Your task to perform on an android device: Open Google Image 0: 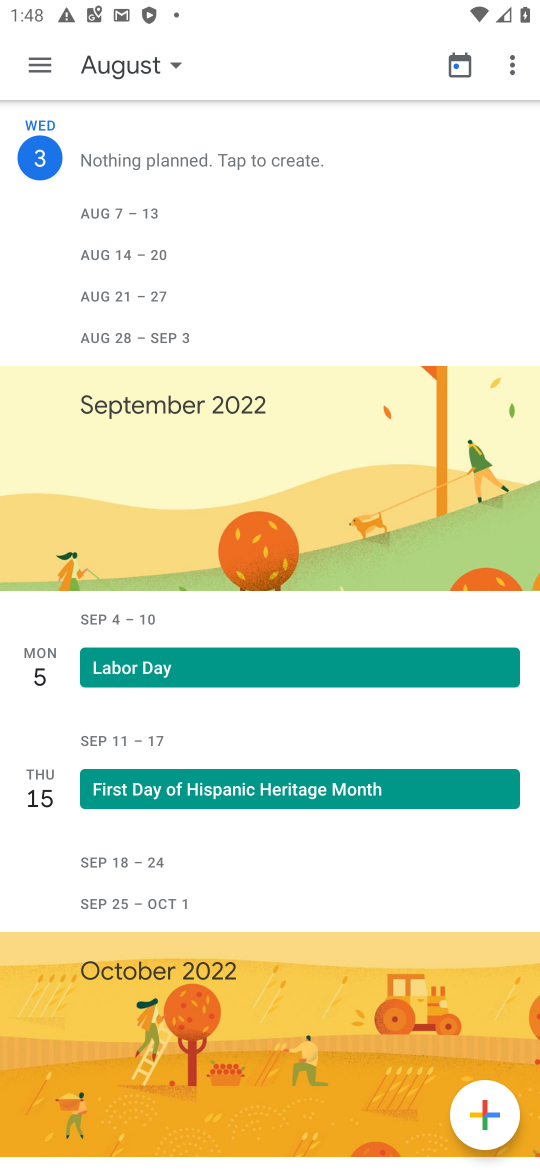
Step 0: press home button
Your task to perform on an android device: Open Google Image 1: 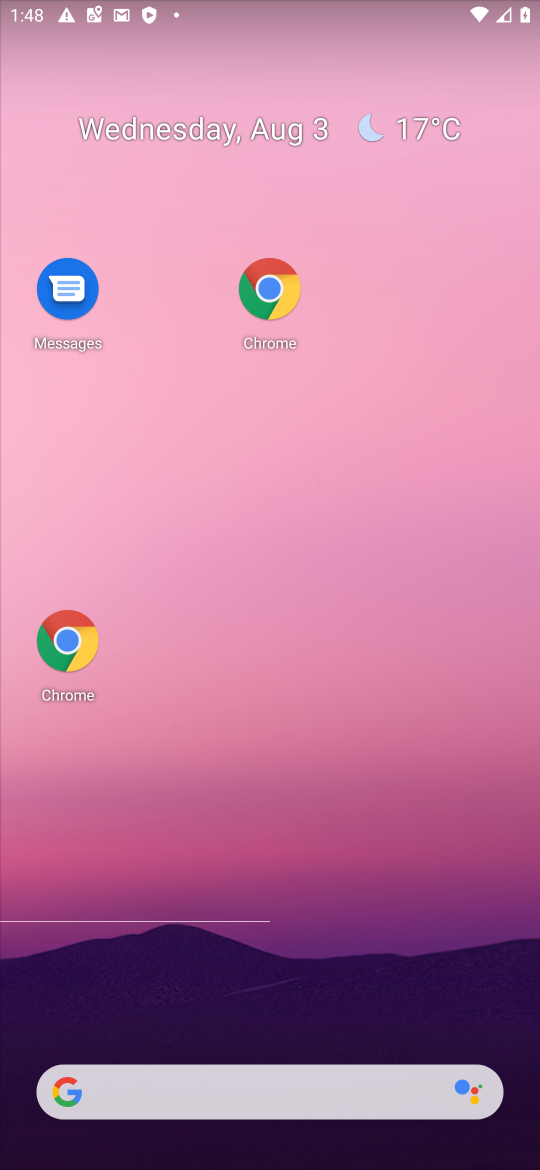
Step 1: click (54, 664)
Your task to perform on an android device: Open Google Image 2: 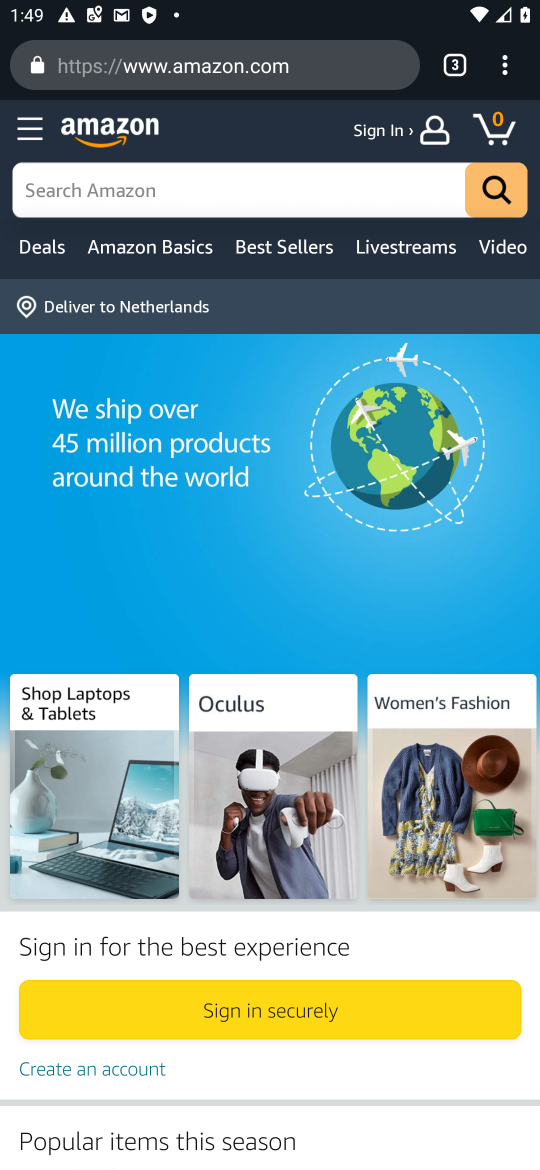
Step 2: click (358, 56)
Your task to perform on an android device: Open Google Image 3: 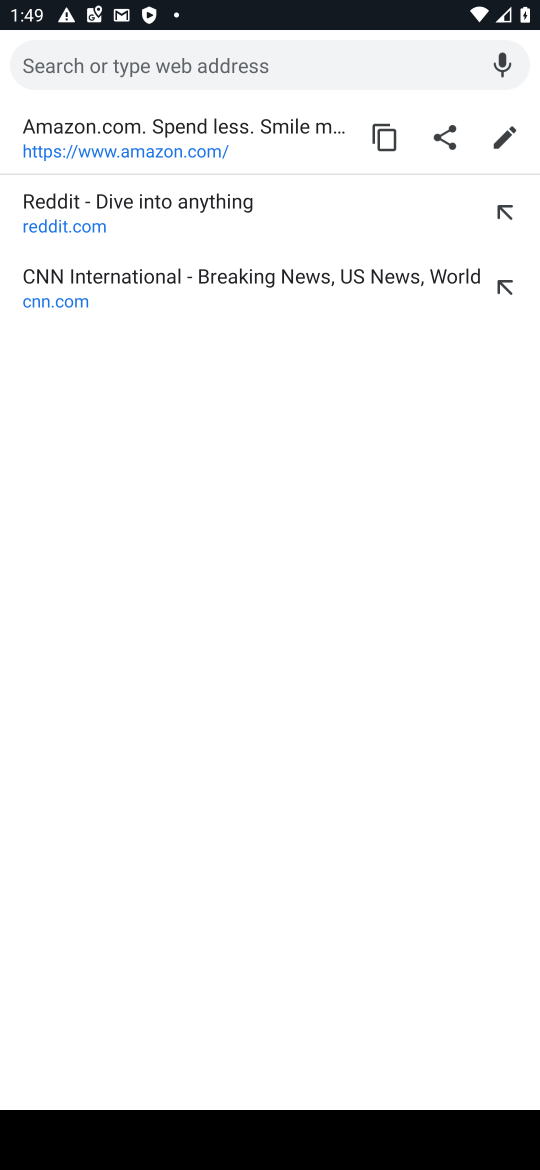
Step 3: type "google.com"
Your task to perform on an android device: Open Google Image 4: 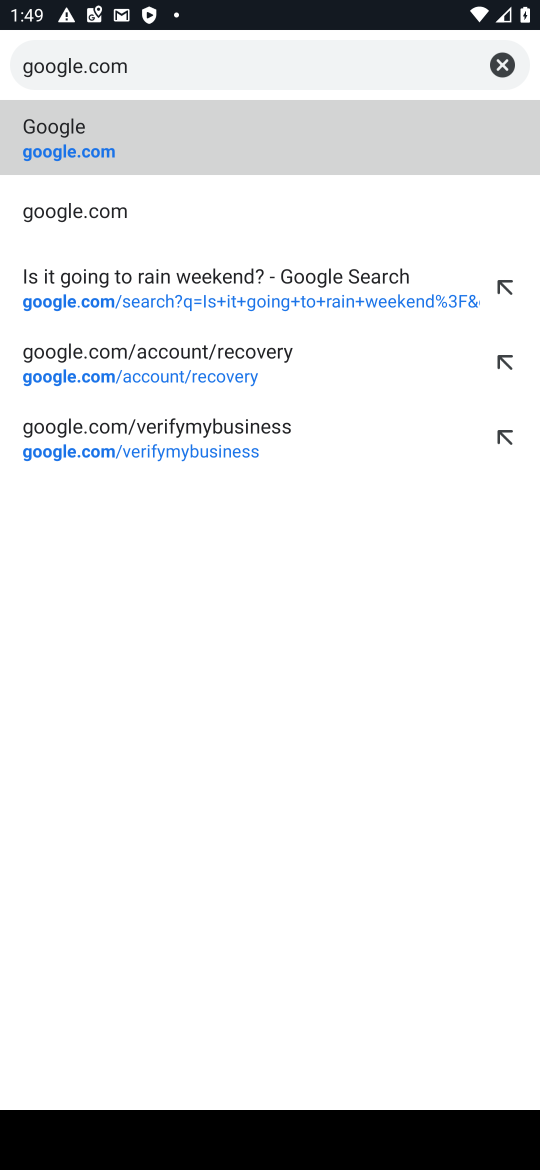
Step 4: click (266, 133)
Your task to perform on an android device: Open Google Image 5: 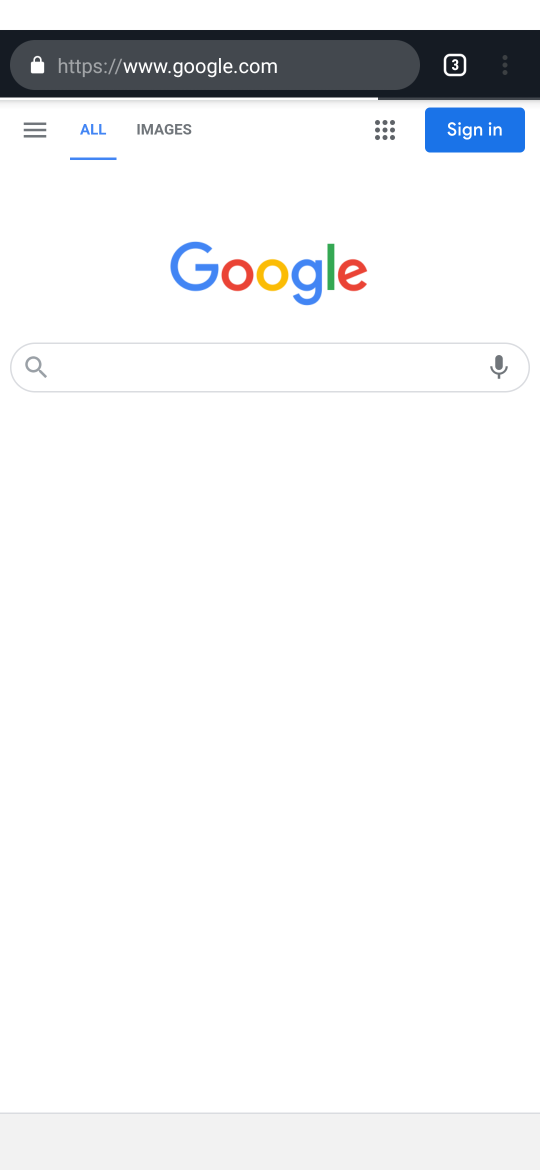
Step 5: task complete